Your task to perform on an android device: open sync settings in chrome Image 0: 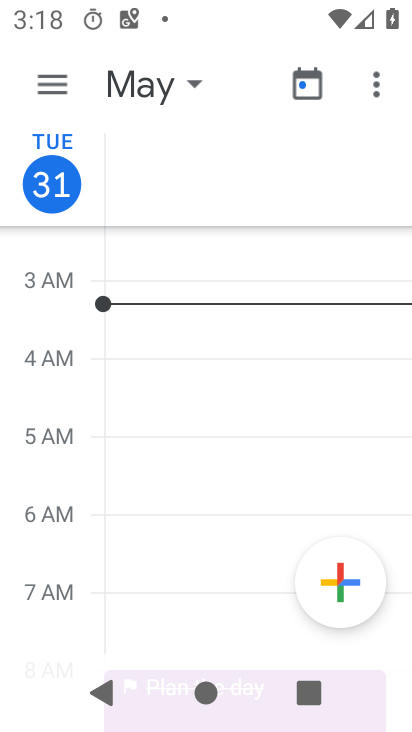
Step 0: press home button
Your task to perform on an android device: open sync settings in chrome Image 1: 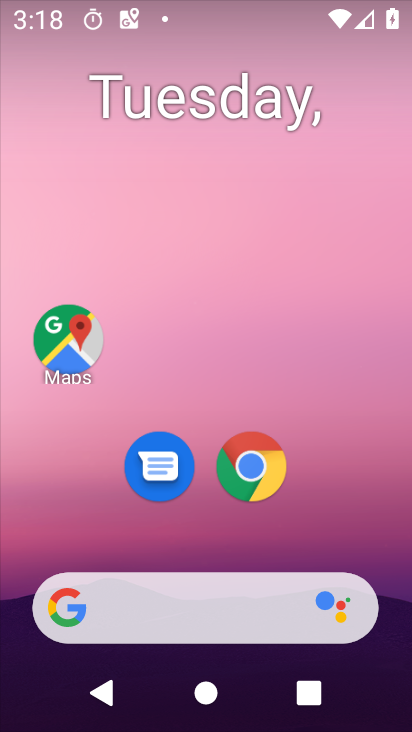
Step 1: drag from (374, 529) to (363, 182)
Your task to perform on an android device: open sync settings in chrome Image 2: 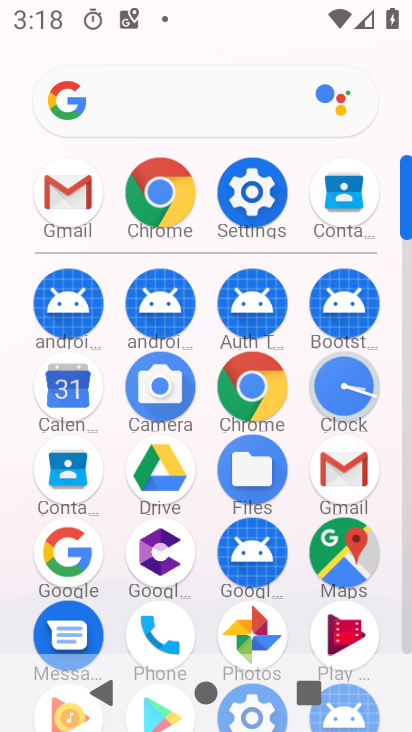
Step 2: click (271, 382)
Your task to perform on an android device: open sync settings in chrome Image 3: 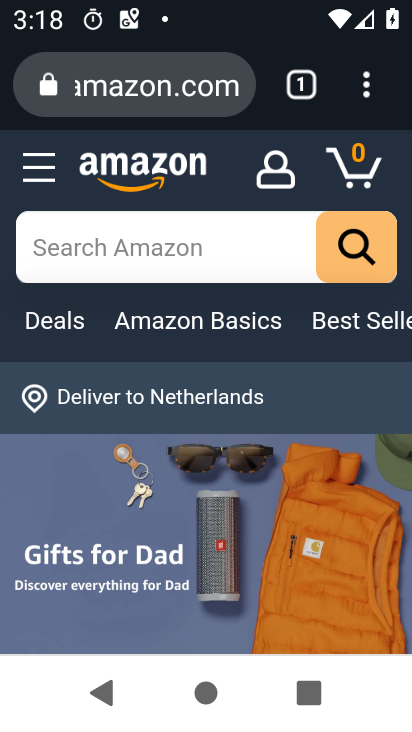
Step 3: click (366, 102)
Your task to perform on an android device: open sync settings in chrome Image 4: 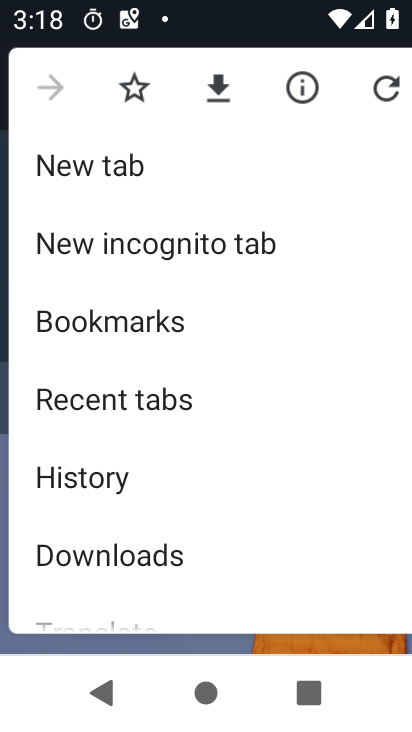
Step 4: drag from (374, 541) to (364, 388)
Your task to perform on an android device: open sync settings in chrome Image 5: 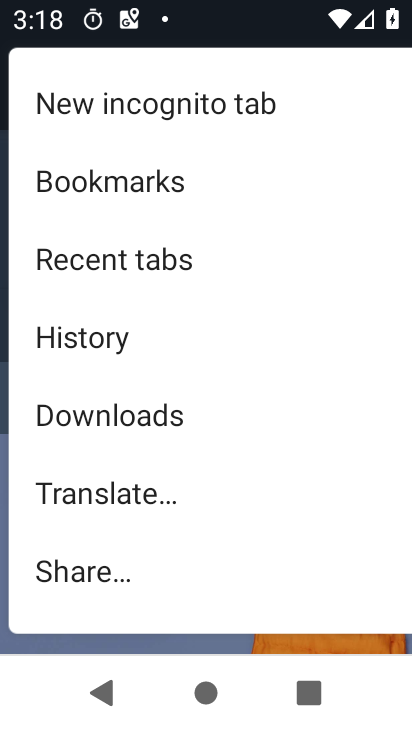
Step 5: drag from (346, 550) to (349, 363)
Your task to perform on an android device: open sync settings in chrome Image 6: 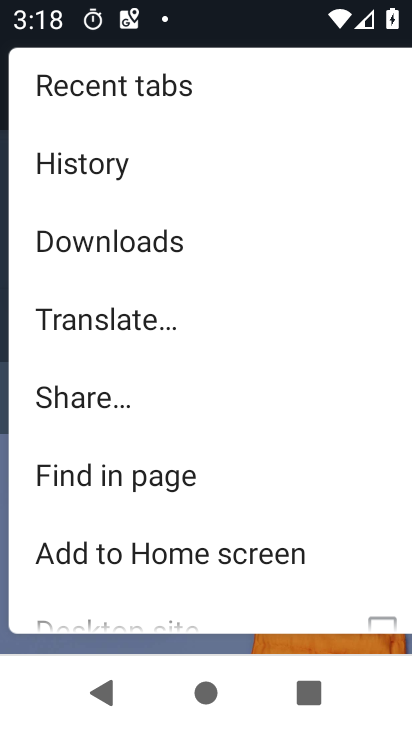
Step 6: drag from (342, 511) to (353, 346)
Your task to perform on an android device: open sync settings in chrome Image 7: 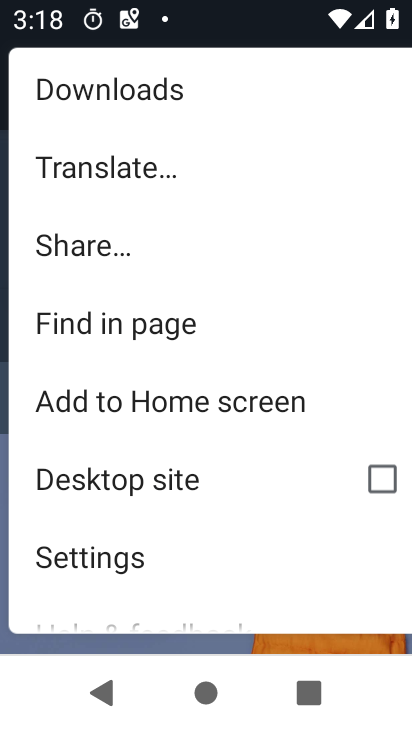
Step 7: drag from (315, 529) to (330, 350)
Your task to perform on an android device: open sync settings in chrome Image 8: 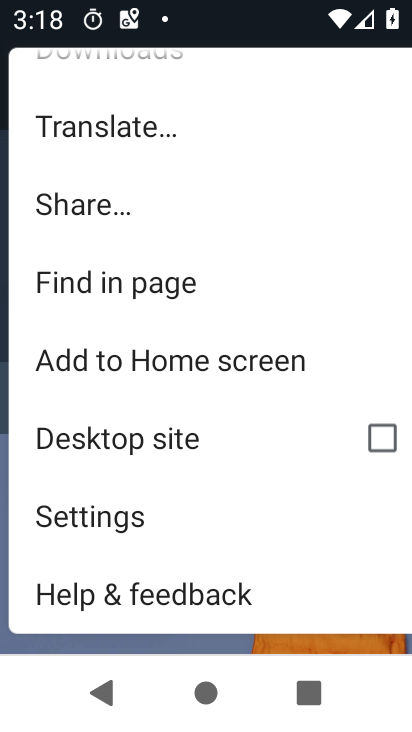
Step 8: click (127, 529)
Your task to perform on an android device: open sync settings in chrome Image 9: 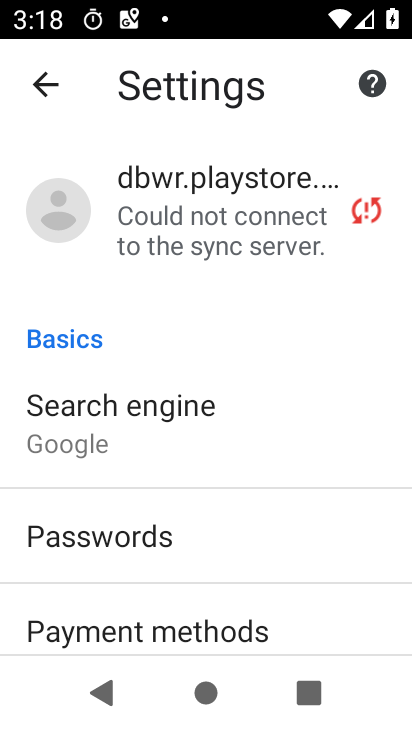
Step 9: drag from (281, 551) to (292, 462)
Your task to perform on an android device: open sync settings in chrome Image 10: 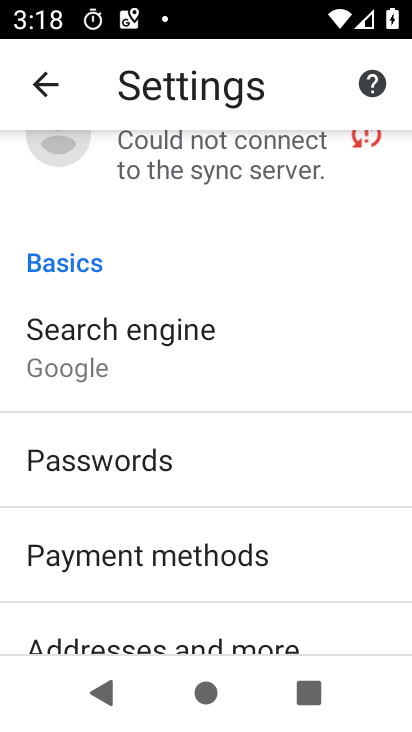
Step 10: drag from (321, 582) to (310, 475)
Your task to perform on an android device: open sync settings in chrome Image 11: 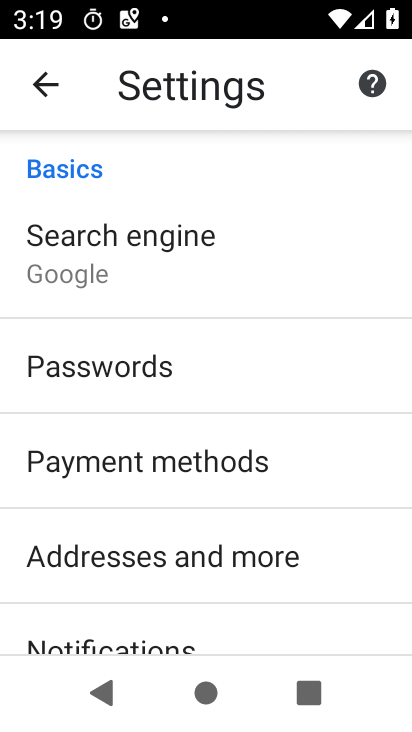
Step 11: drag from (340, 567) to (346, 455)
Your task to perform on an android device: open sync settings in chrome Image 12: 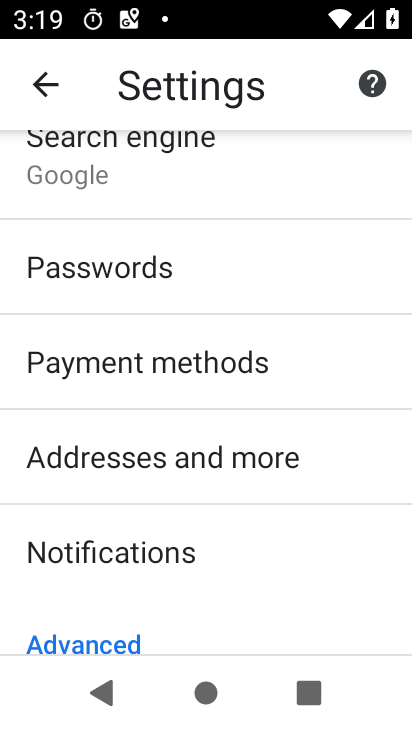
Step 12: drag from (375, 519) to (364, 420)
Your task to perform on an android device: open sync settings in chrome Image 13: 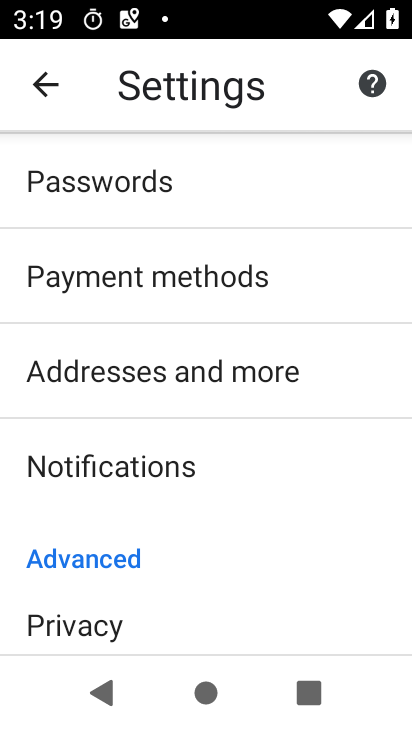
Step 13: drag from (342, 542) to (343, 407)
Your task to perform on an android device: open sync settings in chrome Image 14: 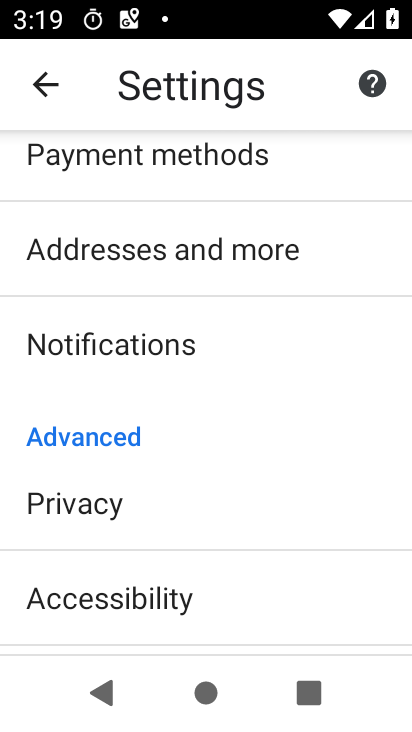
Step 14: drag from (284, 514) to (287, 396)
Your task to perform on an android device: open sync settings in chrome Image 15: 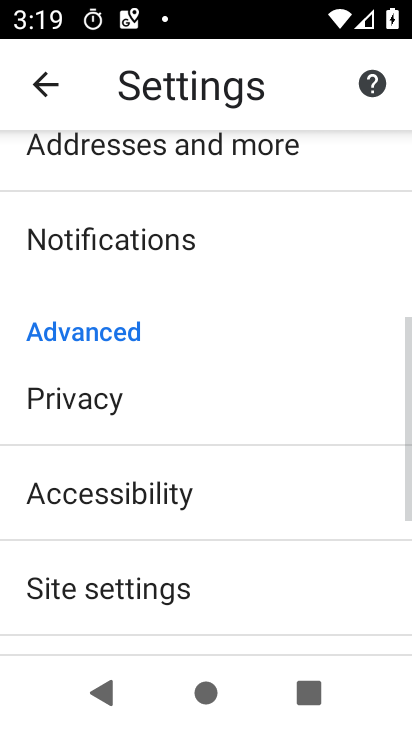
Step 15: drag from (302, 529) to (308, 396)
Your task to perform on an android device: open sync settings in chrome Image 16: 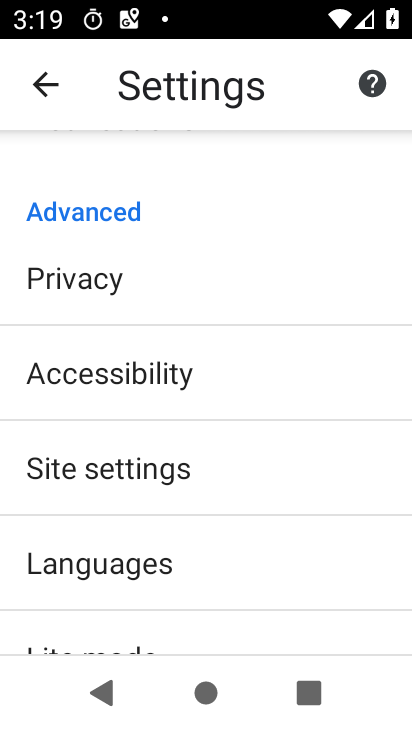
Step 16: click (231, 464)
Your task to perform on an android device: open sync settings in chrome Image 17: 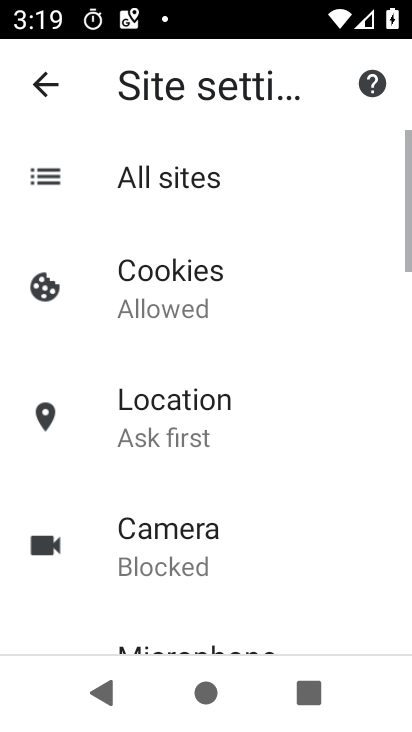
Step 17: drag from (357, 499) to (349, 362)
Your task to perform on an android device: open sync settings in chrome Image 18: 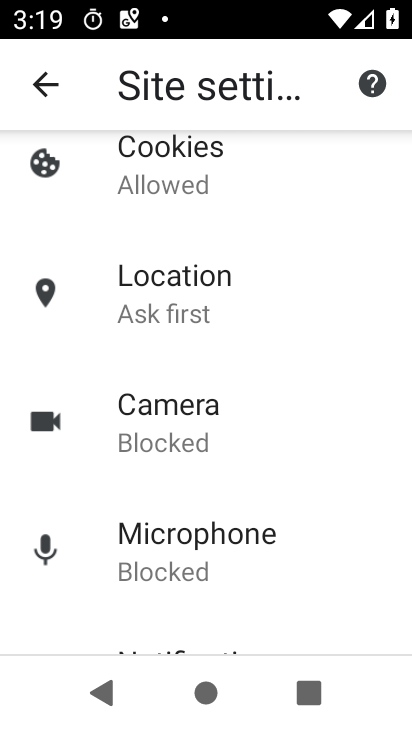
Step 18: drag from (328, 474) to (351, 344)
Your task to perform on an android device: open sync settings in chrome Image 19: 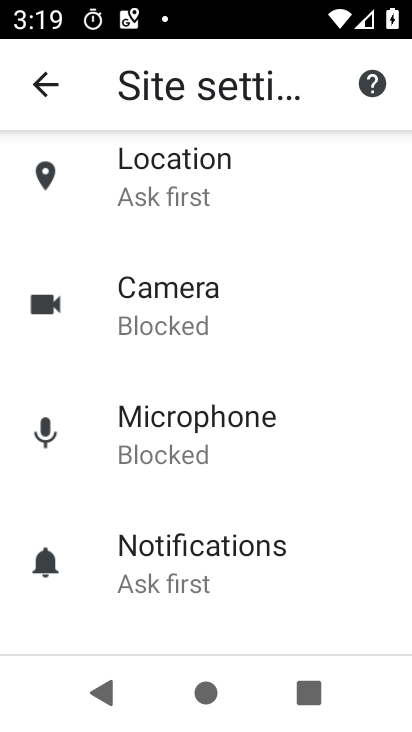
Step 19: drag from (340, 505) to (331, 320)
Your task to perform on an android device: open sync settings in chrome Image 20: 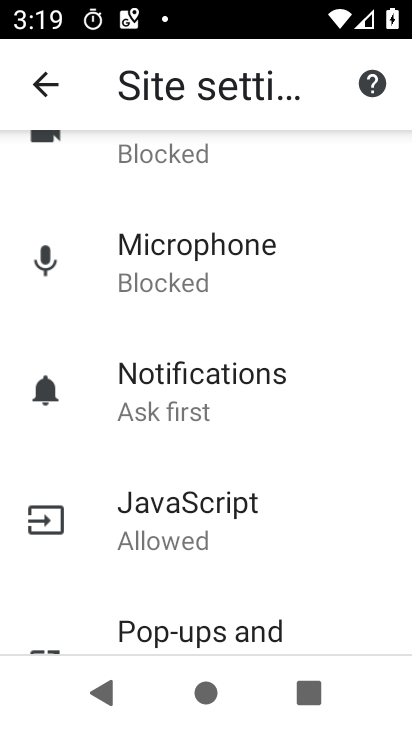
Step 20: drag from (324, 519) to (324, 383)
Your task to perform on an android device: open sync settings in chrome Image 21: 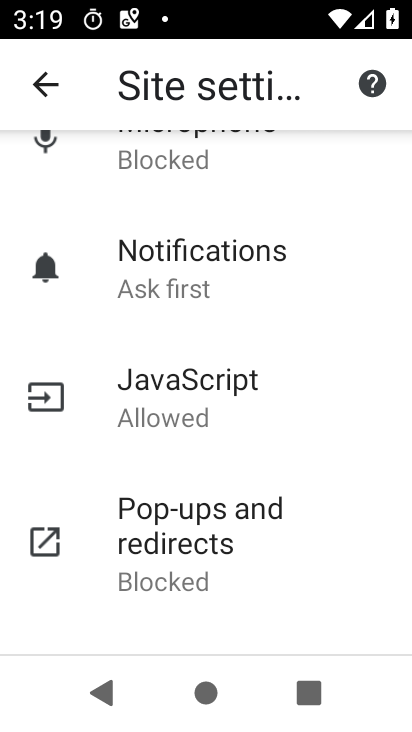
Step 21: drag from (348, 552) to (342, 376)
Your task to perform on an android device: open sync settings in chrome Image 22: 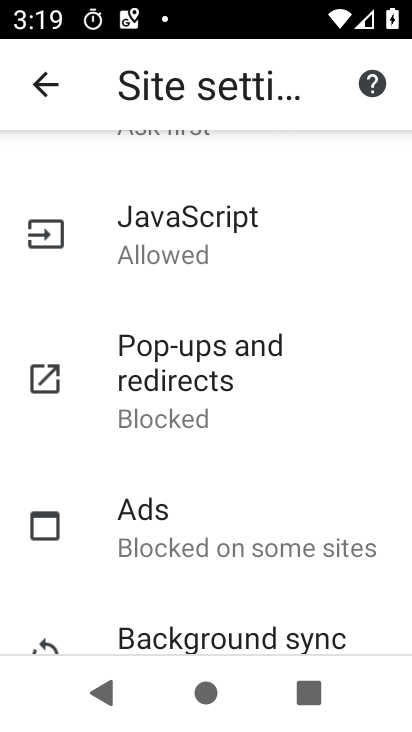
Step 22: drag from (300, 568) to (304, 393)
Your task to perform on an android device: open sync settings in chrome Image 23: 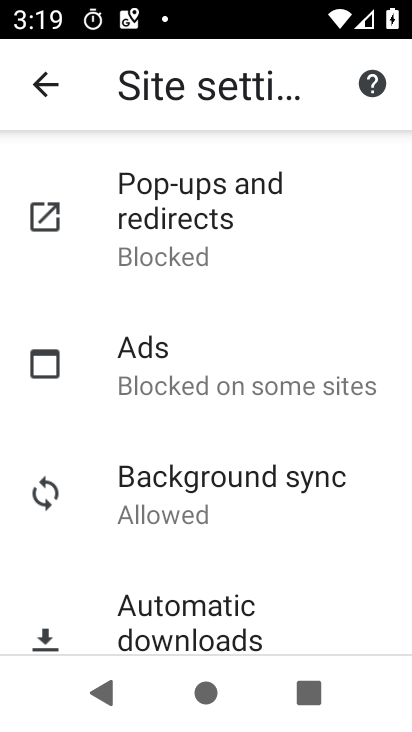
Step 23: click (255, 495)
Your task to perform on an android device: open sync settings in chrome Image 24: 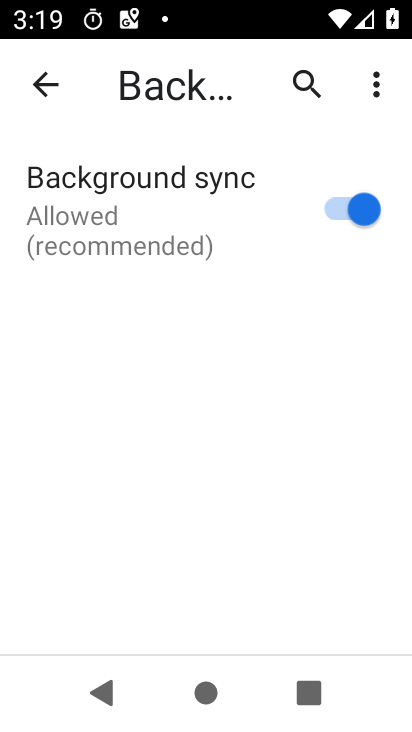
Step 24: task complete